Your task to perform on an android device: turn on the 24-hour format for clock Image 0: 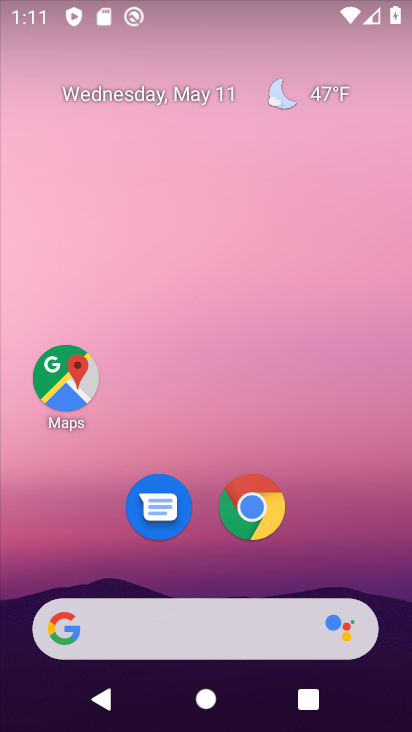
Step 0: drag from (329, 550) to (358, 149)
Your task to perform on an android device: turn on the 24-hour format for clock Image 1: 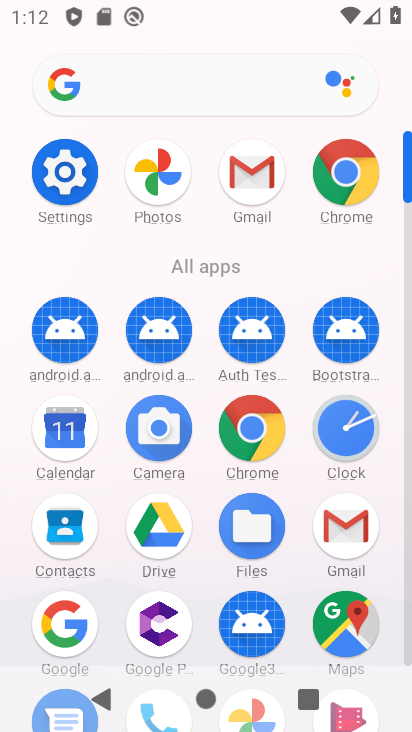
Step 1: click (335, 427)
Your task to perform on an android device: turn on the 24-hour format for clock Image 2: 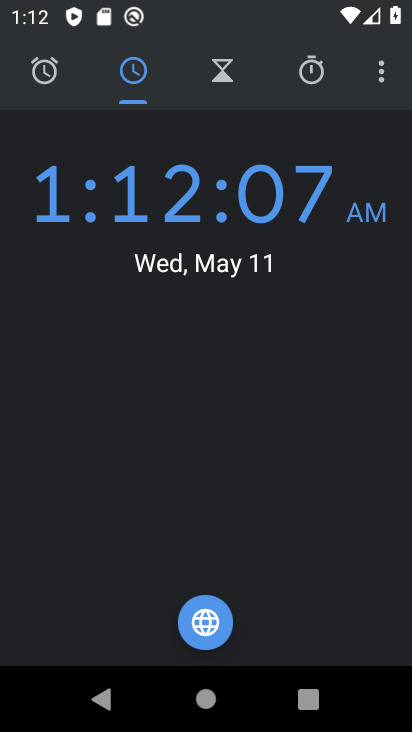
Step 2: click (380, 78)
Your task to perform on an android device: turn on the 24-hour format for clock Image 3: 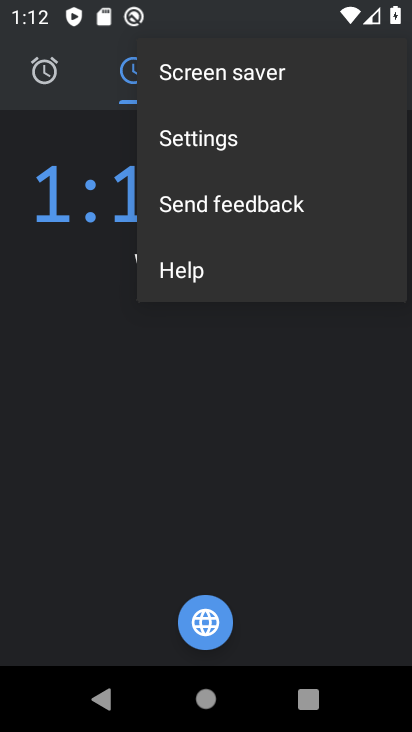
Step 3: click (216, 135)
Your task to perform on an android device: turn on the 24-hour format for clock Image 4: 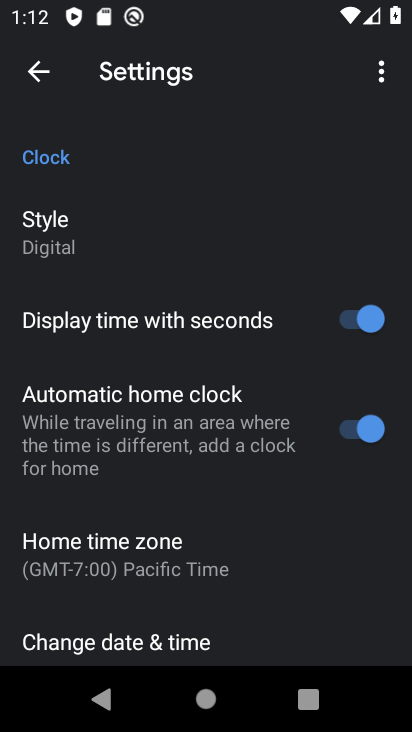
Step 4: drag from (299, 513) to (274, 181)
Your task to perform on an android device: turn on the 24-hour format for clock Image 5: 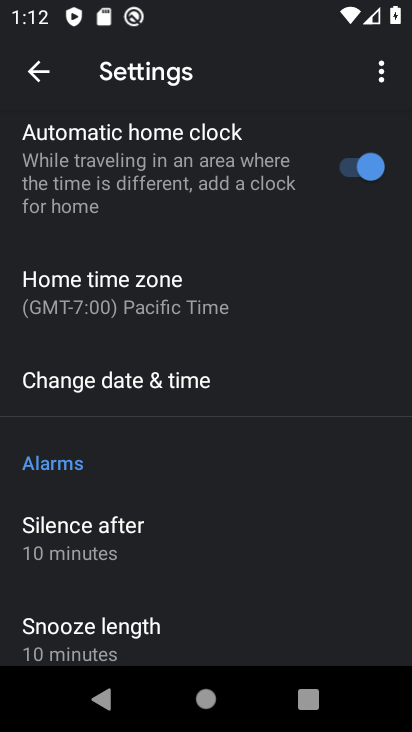
Step 5: click (124, 377)
Your task to perform on an android device: turn on the 24-hour format for clock Image 6: 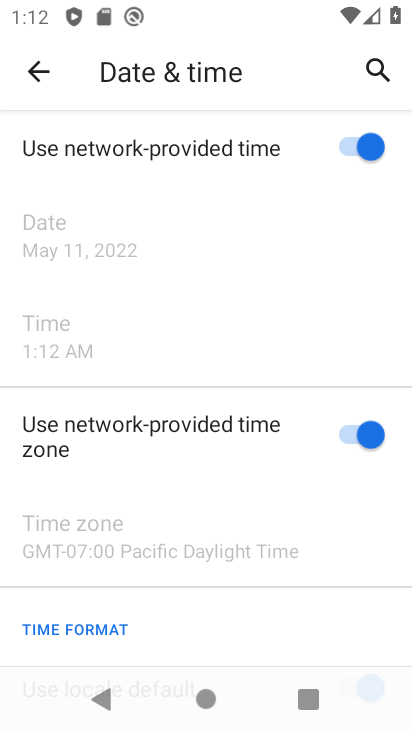
Step 6: drag from (285, 478) to (242, 196)
Your task to perform on an android device: turn on the 24-hour format for clock Image 7: 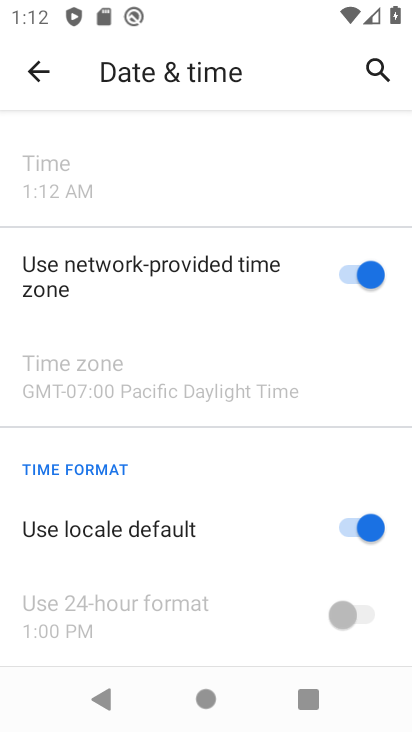
Step 7: click (355, 518)
Your task to perform on an android device: turn on the 24-hour format for clock Image 8: 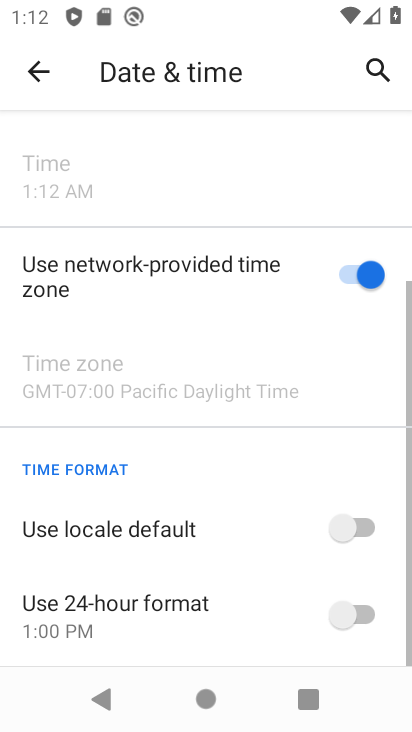
Step 8: click (338, 606)
Your task to perform on an android device: turn on the 24-hour format for clock Image 9: 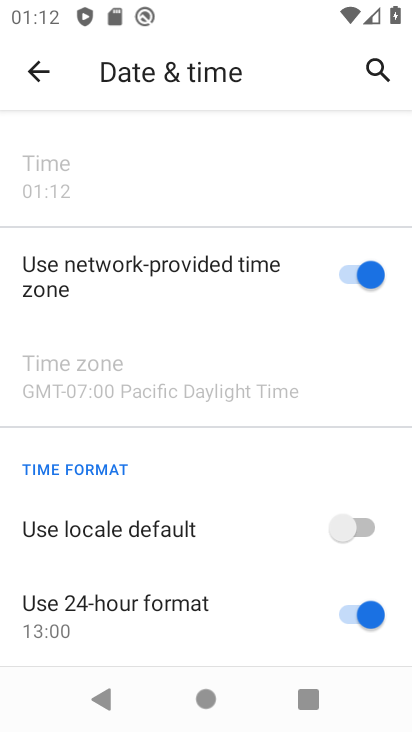
Step 9: task complete